Your task to perform on an android device: Go to battery settings Image 0: 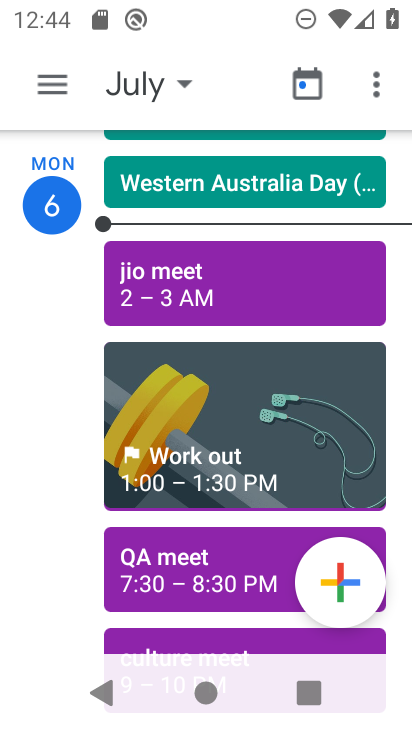
Step 0: press home button
Your task to perform on an android device: Go to battery settings Image 1: 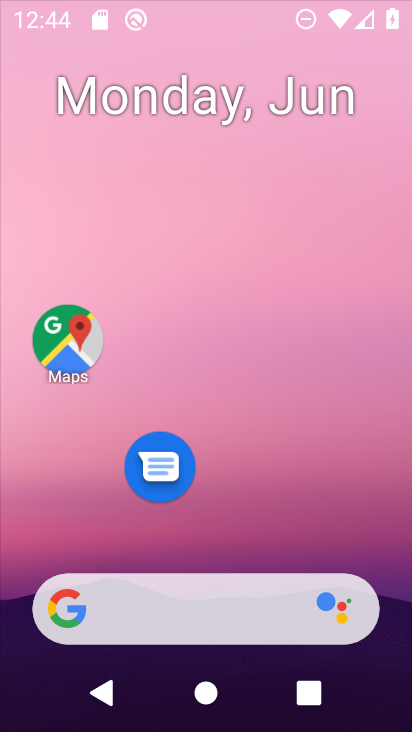
Step 1: drag from (251, 537) to (210, 31)
Your task to perform on an android device: Go to battery settings Image 2: 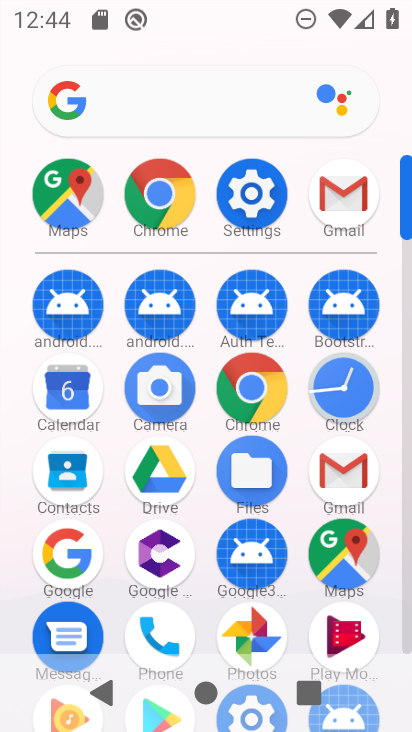
Step 2: click (248, 188)
Your task to perform on an android device: Go to battery settings Image 3: 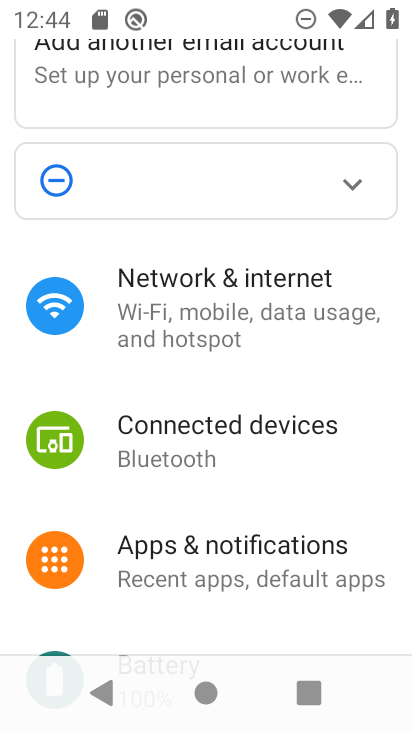
Step 3: drag from (286, 570) to (302, 99)
Your task to perform on an android device: Go to battery settings Image 4: 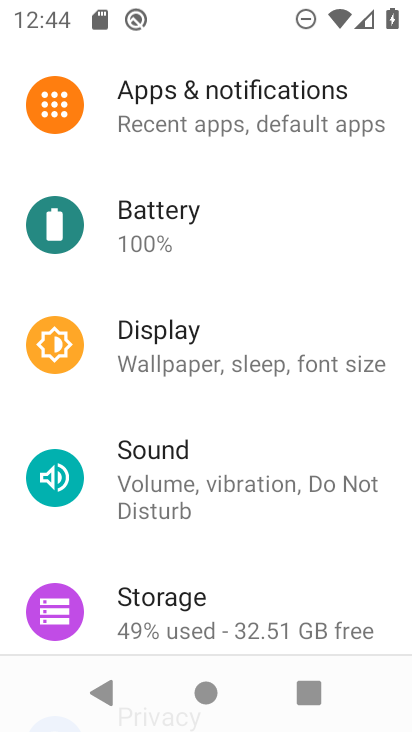
Step 4: click (167, 235)
Your task to perform on an android device: Go to battery settings Image 5: 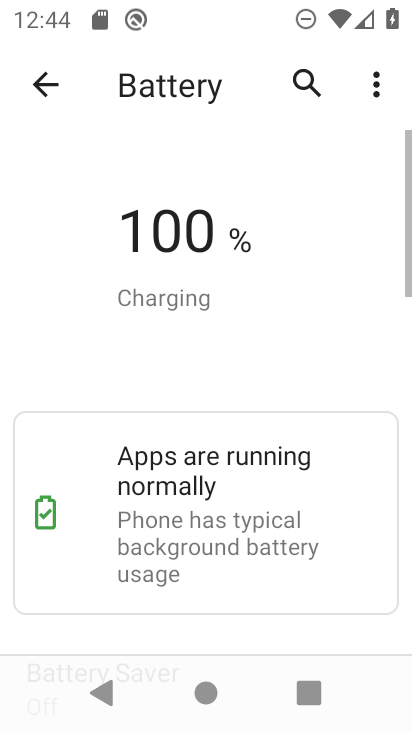
Step 5: task complete